Your task to perform on an android device: snooze an email in the gmail app Image 0: 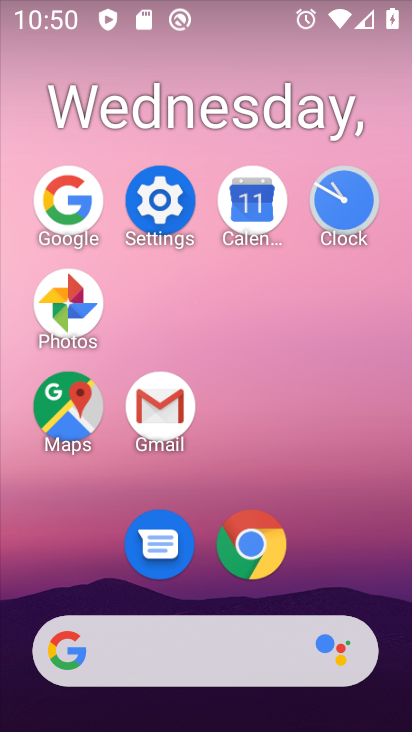
Step 0: click (174, 405)
Your task to perform on an android device: snooze an email in the gmail app Image 1: 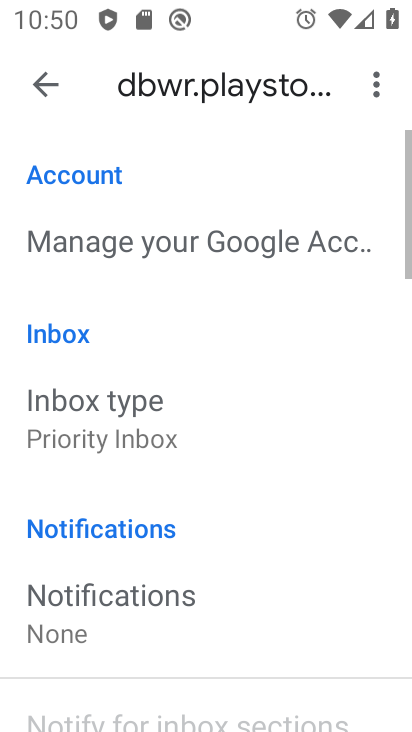
Step 1: click (44, 97)
Your task to perform on an android device: snooze an email in the gmail app Image 2: 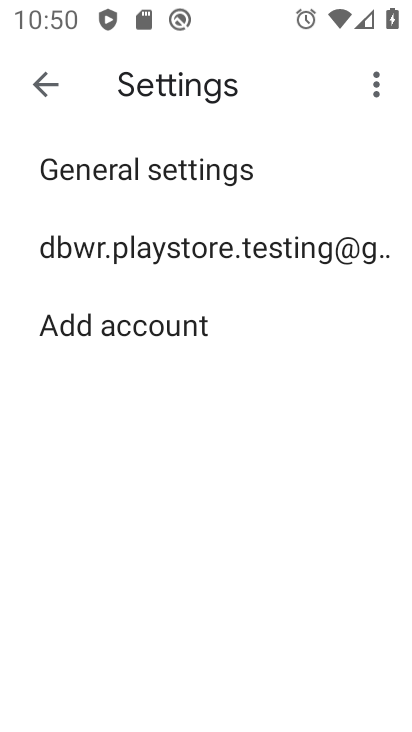
Step 2: click (43, 91)
Your task to perform on an android device: snooze an email in the gmail app Image 3: 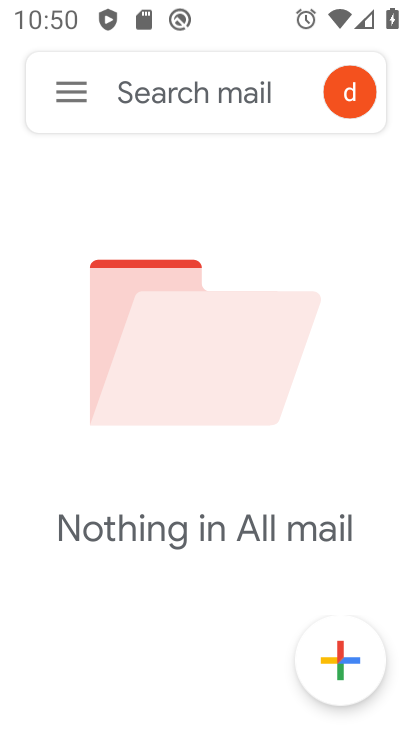
Step 3: click (62, 84)
Your task to perform on an android device: snooze an email in the gmail app Image 4: 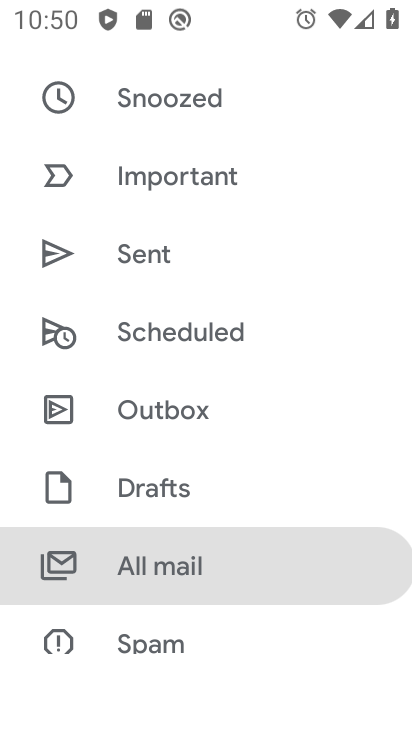
Step 4: click (198, 583)
Your task to perform on an android device: snooze an email in the gmail app Image 5: 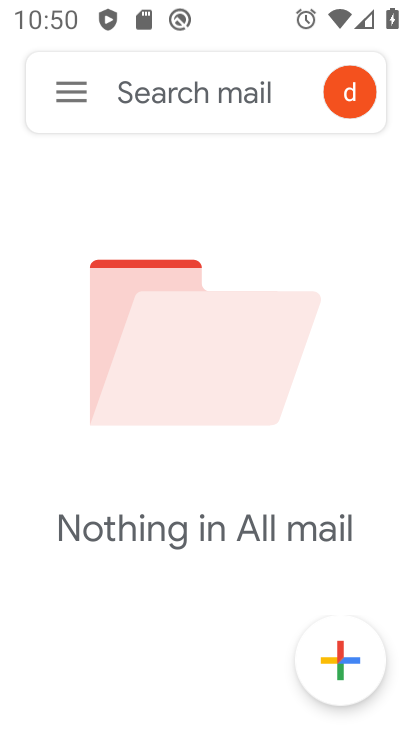
Step 5: task complete